Your task to perform on an android device: Go to Android settings Image 0: 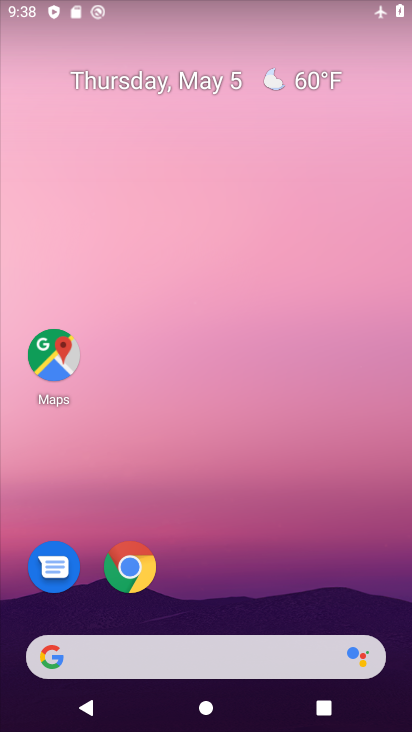
Step 0: drag from (232, 603) to (226, 127)
Your task to perform on an android device: Go to Android settings Image 1: 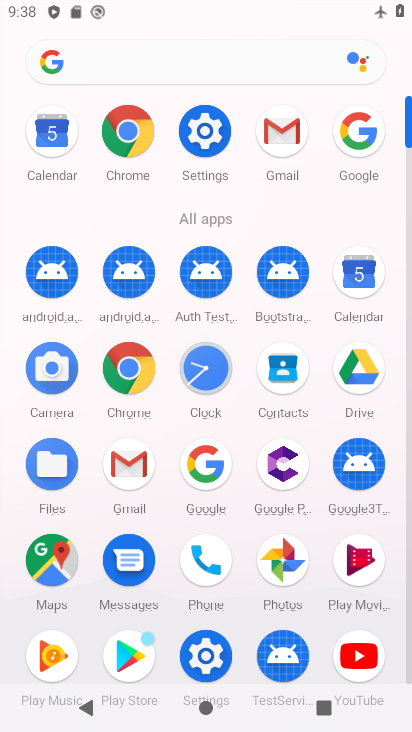
Step 1: click (206, 134)
Your task to perform on an android device: Go to Android settings Image 2: 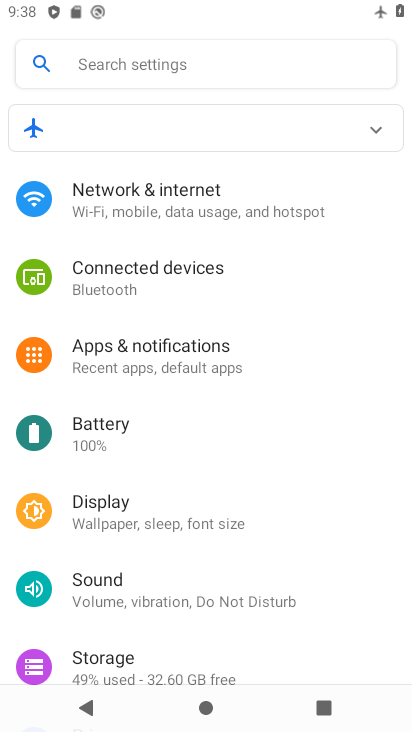
Step 2: task complete